Your task to perform on an android device: toggle priority inbox in the gmail app Image 0: 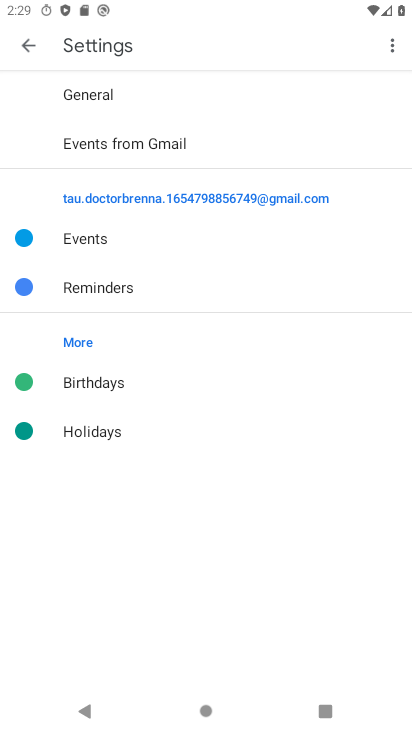
Step 0: drag from (210, 489) to (183, 51)
Your task to perform on an android device: toggle priority inbox in the gmail app Image 1: 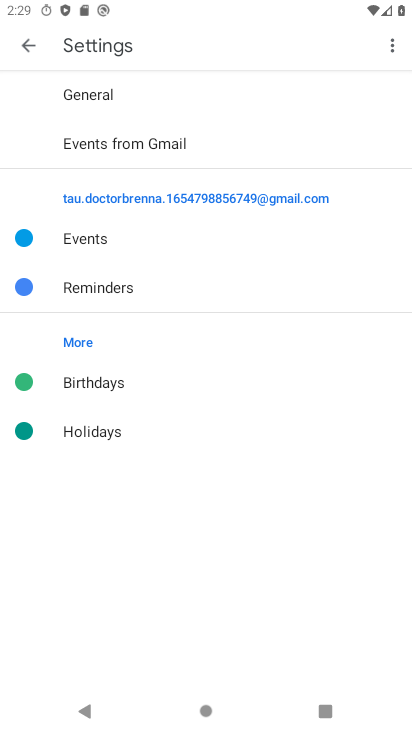
Step 1: press home button
Your task to perform on an android device: toggle priority inbox in the gmail app Image 2: 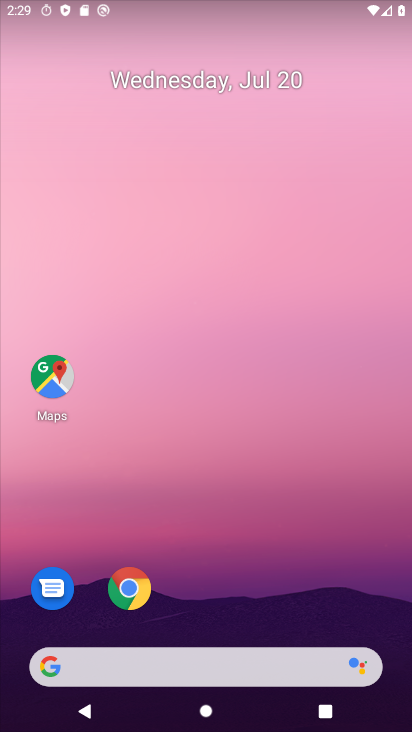
Step 2: drag from (351, 314) to (320, 2)
Your task to perform on an android device: toggle priority inbox in the gmail app Image 3: 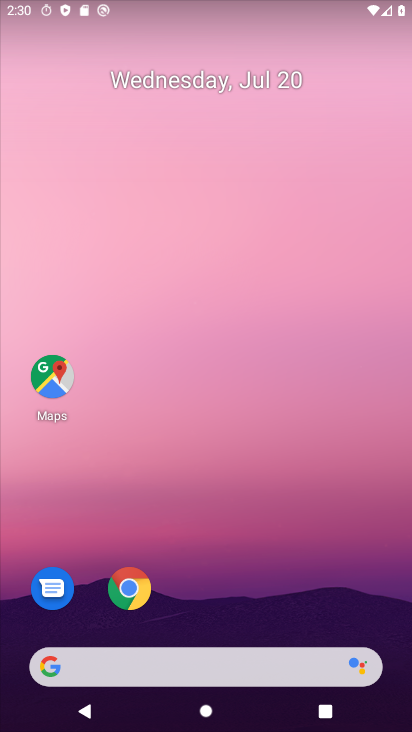
Step 3: drag from (198, 587) to (247, 30)
Your task to perform on an android device: toggle priority inbox in the gmail app Image 4: 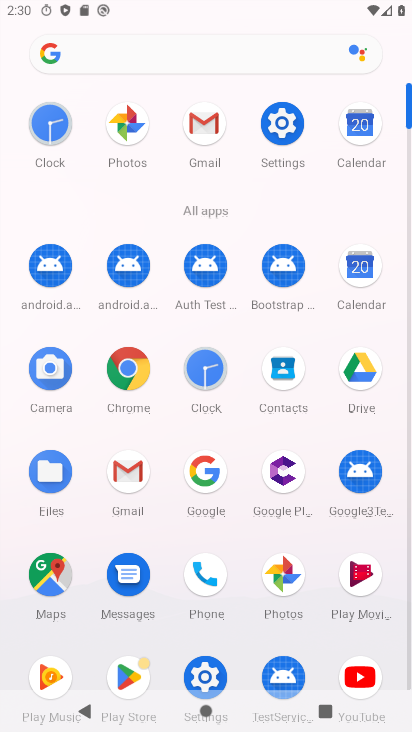
Step 4: click (140, 472)
Your task to perform on an android device: toggle priority inbox in the gmail app Image 5: 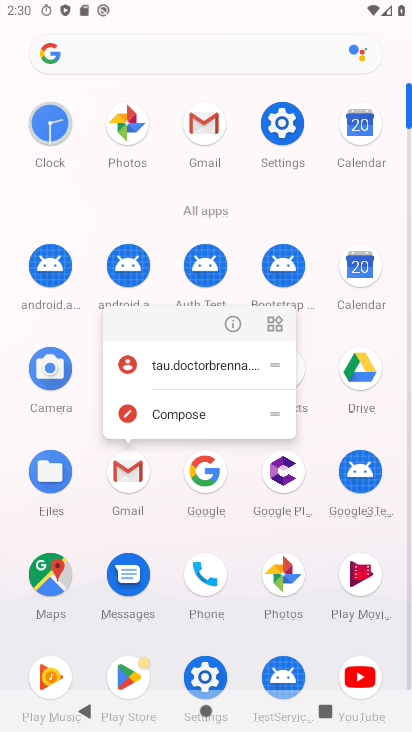
Step 5: click (226, 337)
Your task to perform on an android device: toggle priority inbox in the gmail app Image 6: 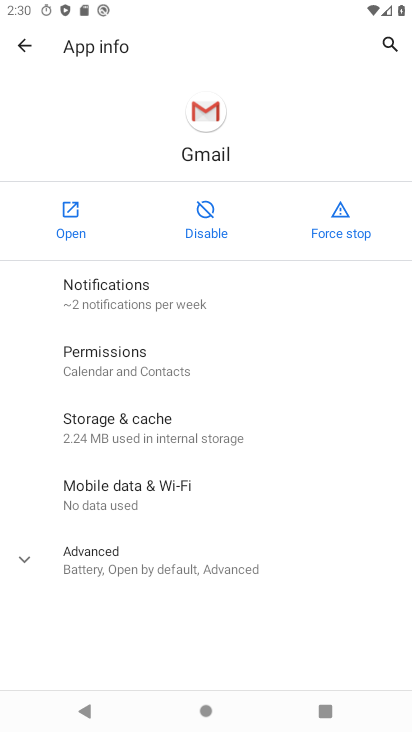
Step 6: click (68, 215)
Your task to perform on an android device: toggle priority inbox in the gmail app Image 7: 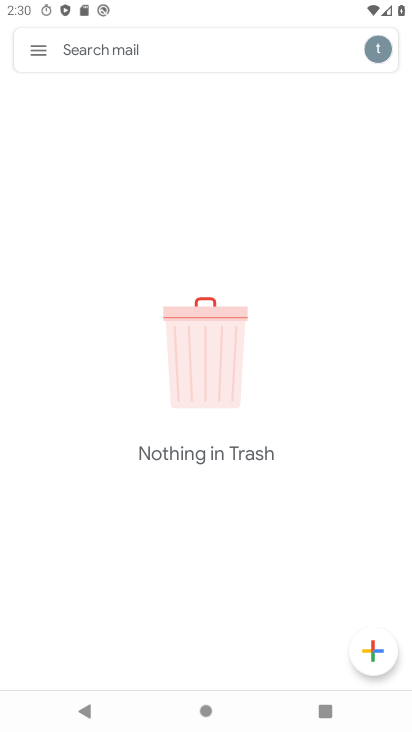
Step 7: drag from (272, 503) to (248, 301)
Your task to perform on an android device: toggle priority inbox in the gmail app Image 8: 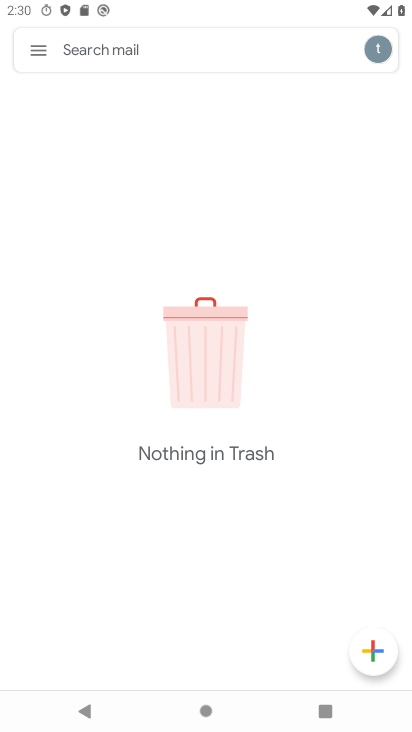
Step 8: click (38, 46)
Your task to perform on an android device: toggle priority inbox in the gmail app Image 9: 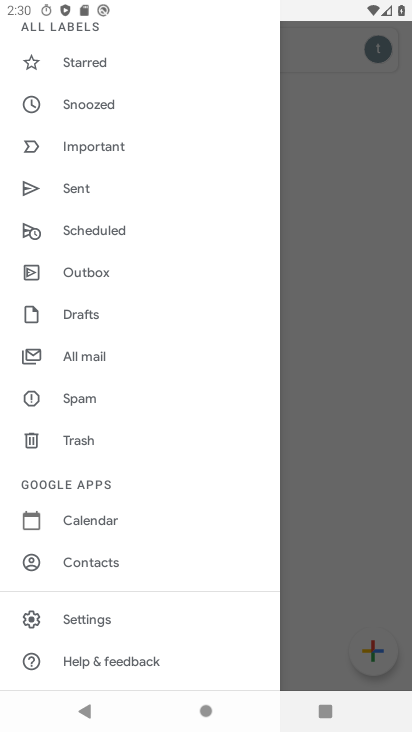
Step 9: click (88, 614)
Your task to perform on an android device: toggle priority inbox in the gmail app Image 10: 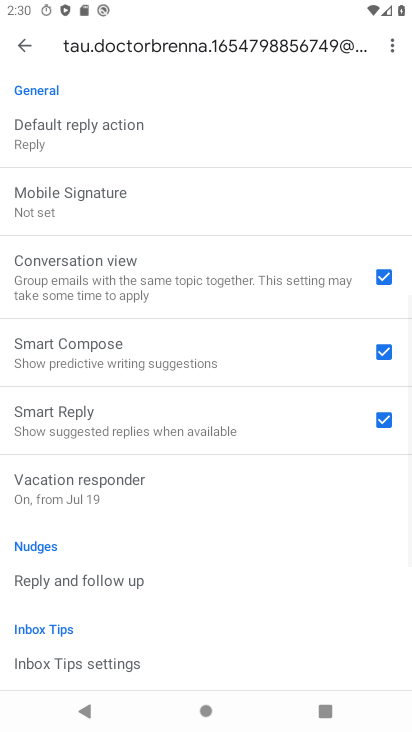
Step 10: drag from (93, 332) to (244, 730)
Your task to perform on an android device: toggle priority inbox in the gmail app Image 11: 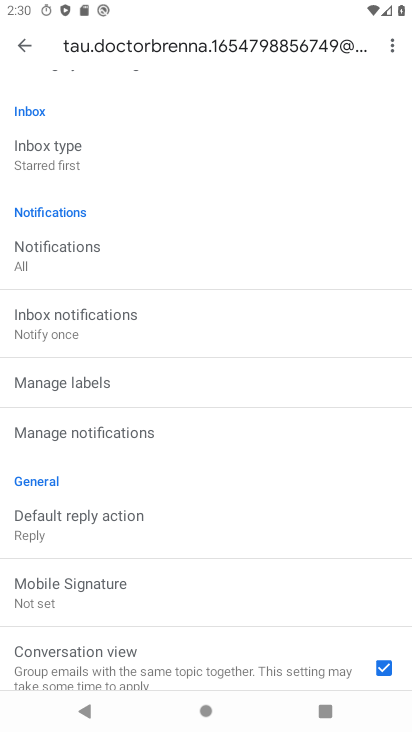
Step 11: click (117, 258)
Your task to perform on an android device: toggle priority inbox in the gmail app Image 12: 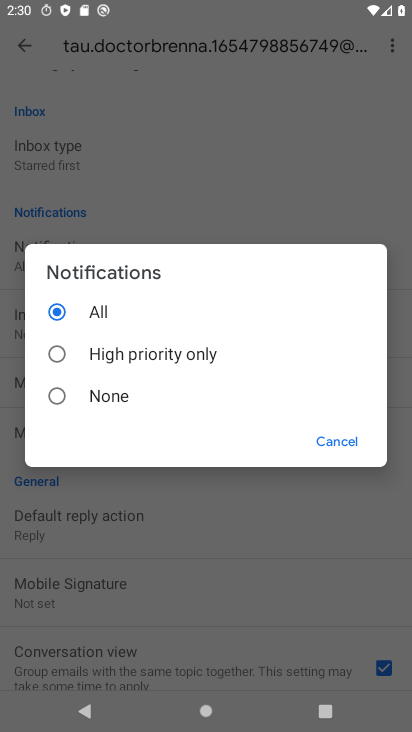
Step 12: click (336, 449)
Your task to perform on an android device: toggle priority inbox in the gmail app Image 13: 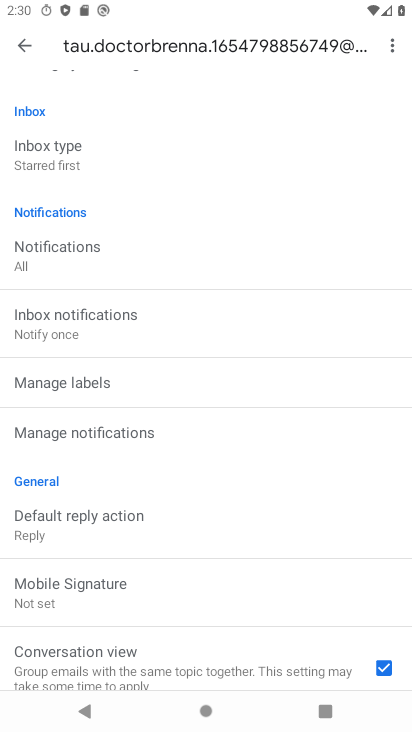
Step 13: drag from (176, 323) to (296, 724)
Your task to perform on an android device: toggle priority inbox in the gmail app Image 14: 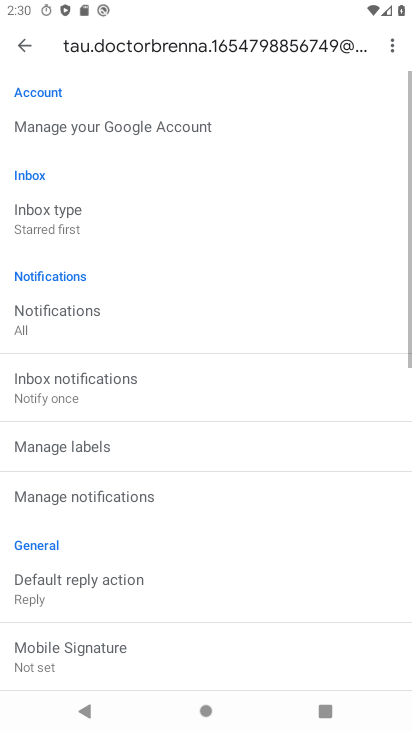
Step 14: click (75, 226)
Your task to perform on an android device: toggle priority inbox in the gmail app Image 15: 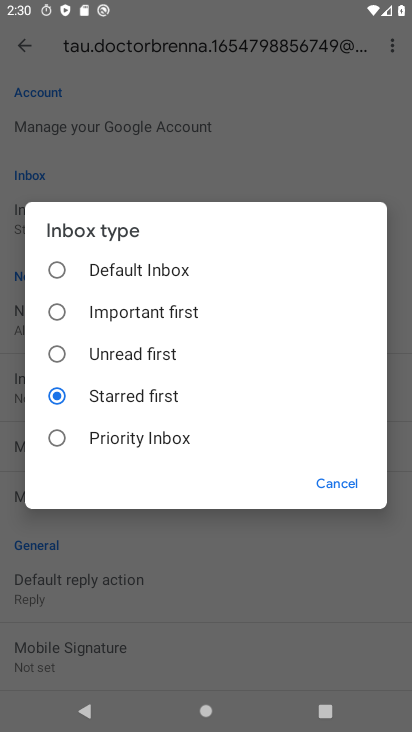
Step 15: click (122, 427)
Your task to perform on an android device: toggle priority inbox in the gmail app Image 16: 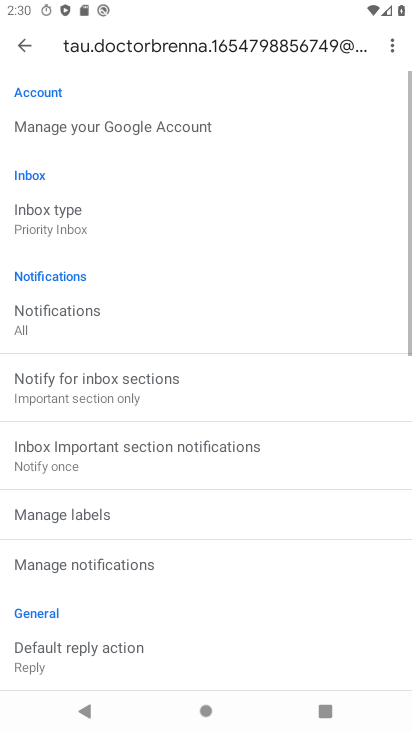
Step 16: task complete